Your task to perform on an android device: Go to display settings Image 0: 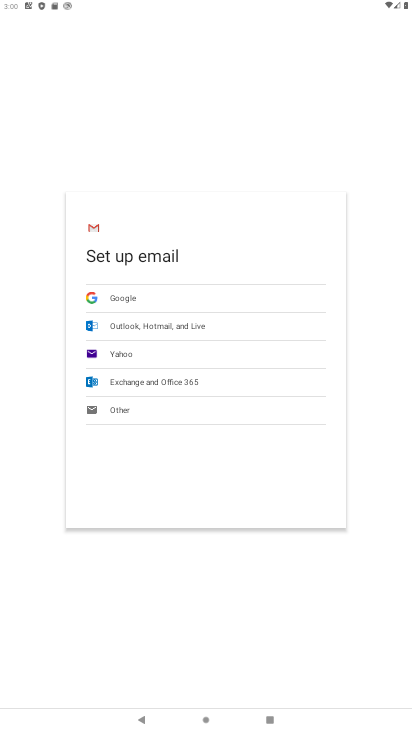
Step 0: press home button
Your task to perform on an android device: Go to display settings Image 1: 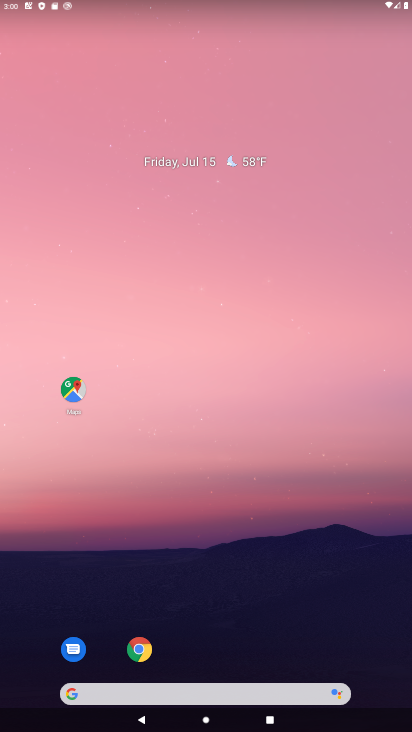
Step 1: drag from (225, 724) to (233, 201)
Your task to perform on an android device: Go to display settings Image 2: 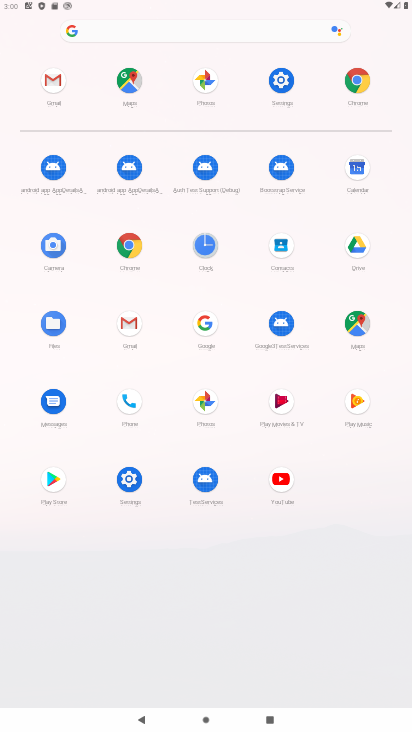
Step 2: click (287, 84)
Your task to perform on an android device: Go to display settings Image 3: 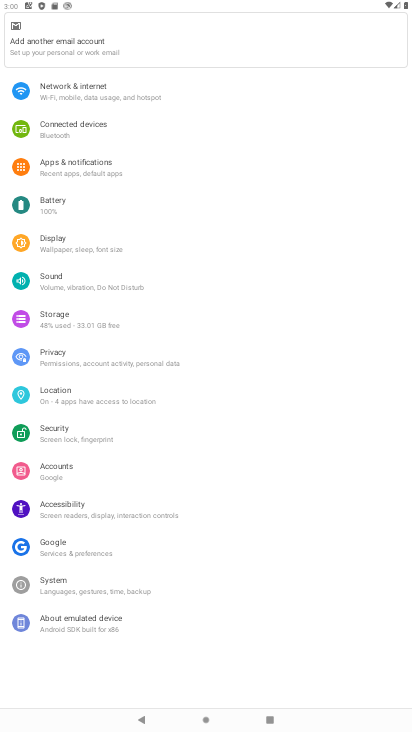
Step 3: click (59, 242)
Your task to perform on an android device: Go to display settings Image 4: 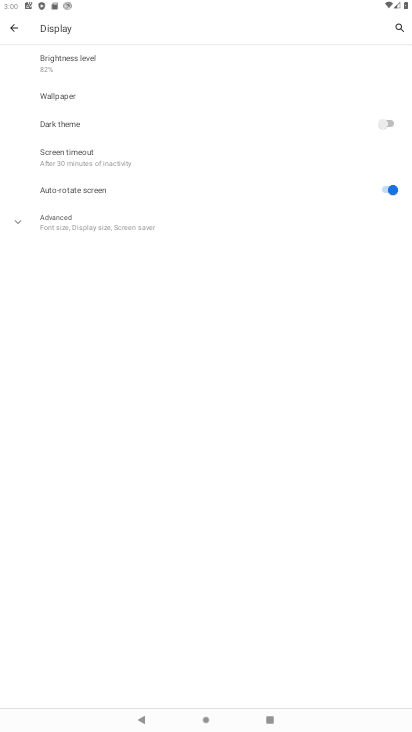
Step 4: task complete